Your task to perform on an android device: Search for Mexican restaurants on Maps Image 0: 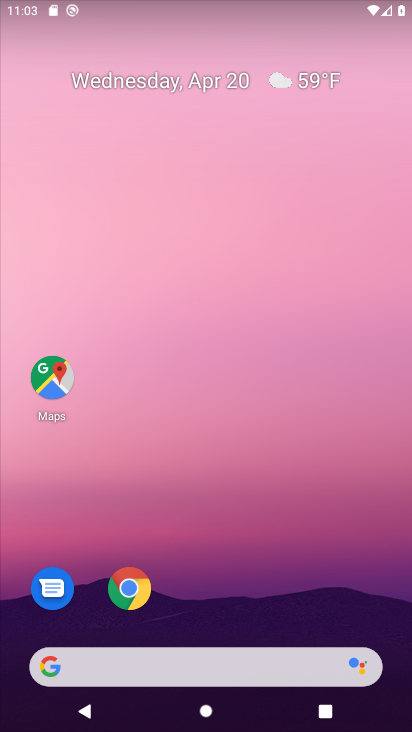
Step 0: click (50, 388)
Your task to perform on an android device: Search for Mexican restaurants on Maps Image 1: 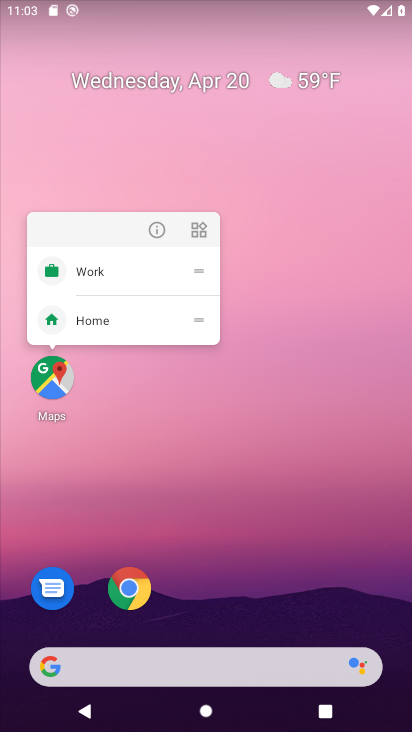
Step 1: click (50, 388)
Your task to perform on an android device: Search for Mexican restaurants on Maps Image 2: 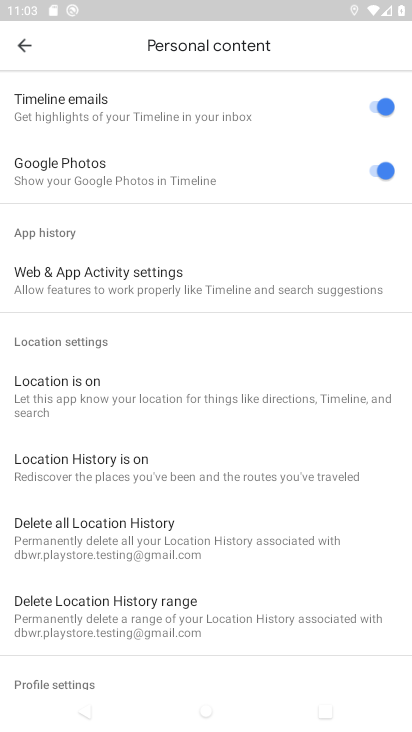
Step 2: click (24, 48)
Your task to perform on an android device: Search for Mexican restaurants on Maps Image 3: 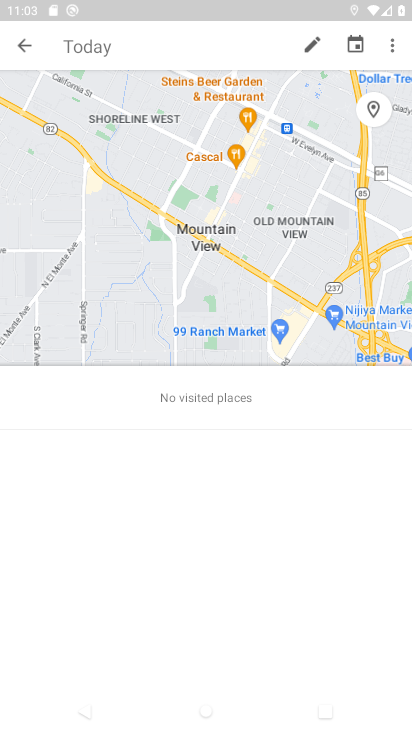
Step 3: click (25, 45)
Your task to perform on an android device: Search for Mexican restaurants on Maps Image 4: 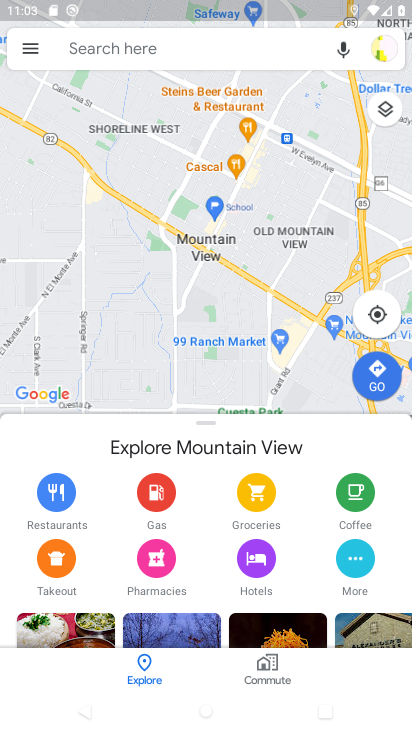
Step 4: click (122, 44)
Your task to perform on an android device: Search for Mexican restaurants on Maps Image 5: 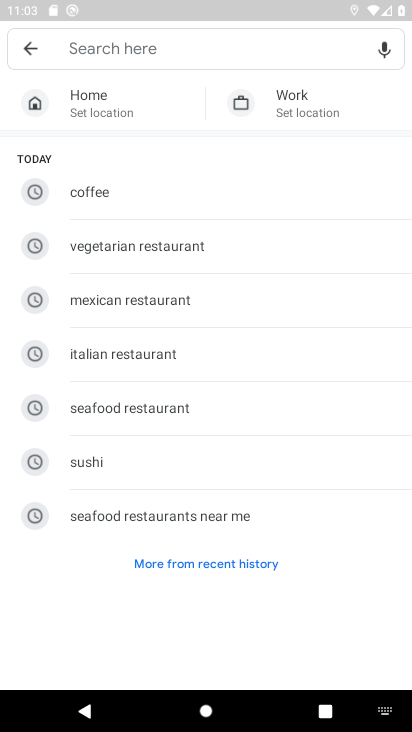
Step 5: click (113, 301)
Your task to perform on an android device: Search for Mexican restaurants on Maps Image 6: 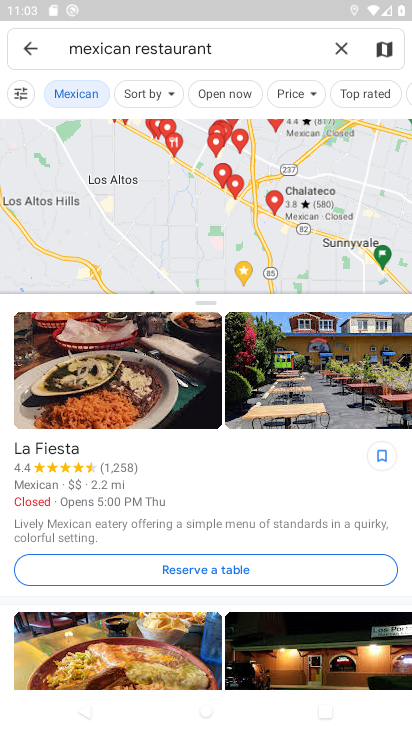
Step 6: task complete